Your task to perform on an android device: see tabs open on other devices in the chrome app Image 0: 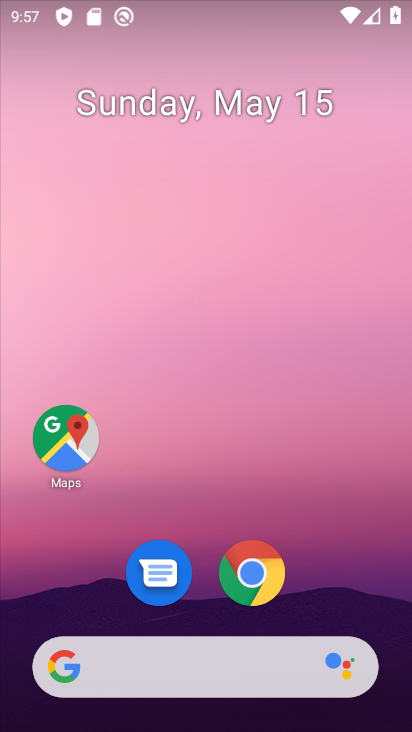
Step 0: click (249, 568)
Your task to perform on an android device: see tabs open on other devices in the chrome app Image 1: 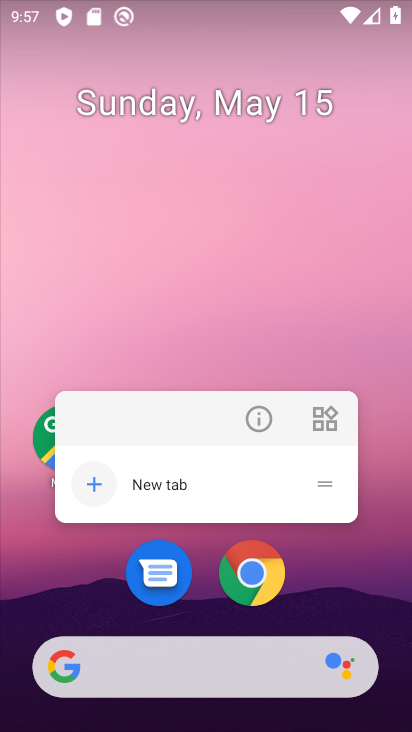
Step 1: click (266, 422)
Your task to perform on an android device: see tabs open on other devices in the chrome app Image 2: 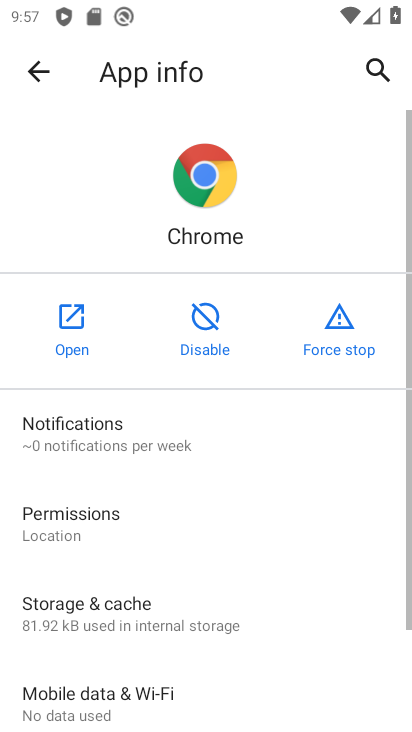
Step 2: click (80, 338)
Your task to perform on an android device: see tabs open on other devices in the chrome app Image 3: 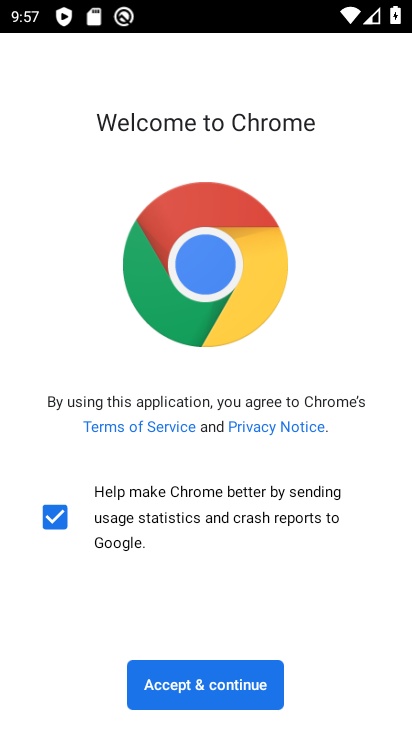
Step 3: click (192, 693)
Your task to perform on an android device: see tabs open on other devices in the chrome app Image 4: 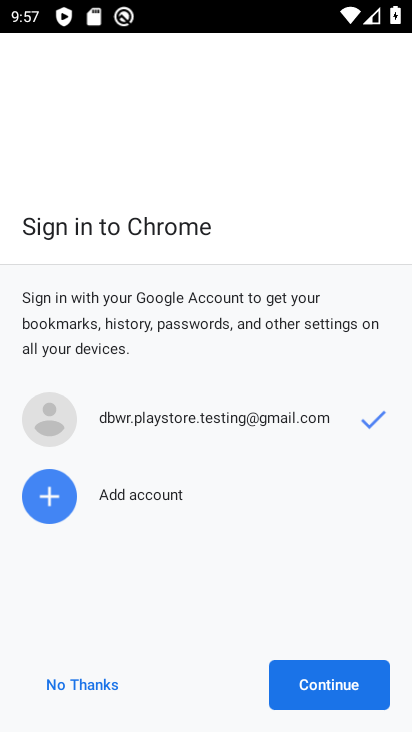
Step 4: click (369, 682)
Your task to perform on an android device: see tabs open on other devices in the chrome app Image 5: 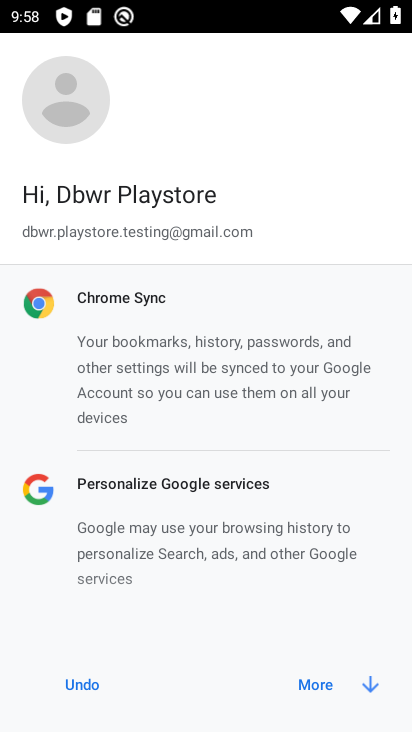
Step 5: click (314, 690)
Your task to perform on an android device: see tabs open on other devices in the chrome app Image 6: 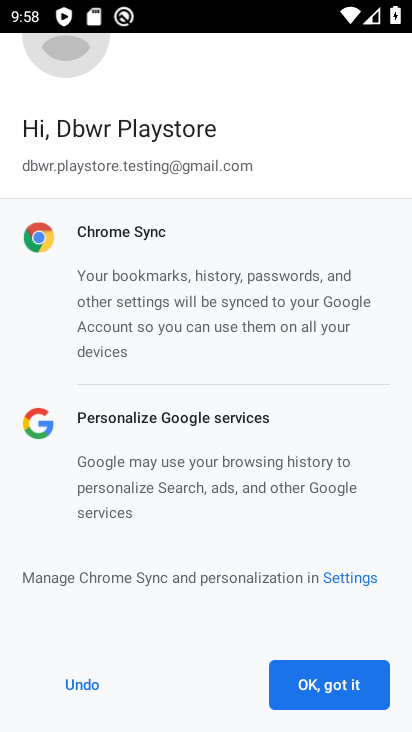
Step 6: click (335, 674)
Your task to perform on an android device: see tabs open on other devices in the chrome app Image 7: 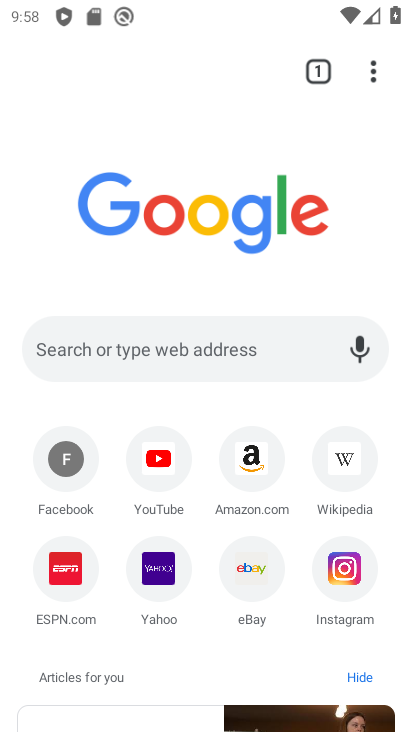
Step 7: click (331, 62)
Your task to perform on an android device: see tabs open on other devices in the chrome app Image 8: 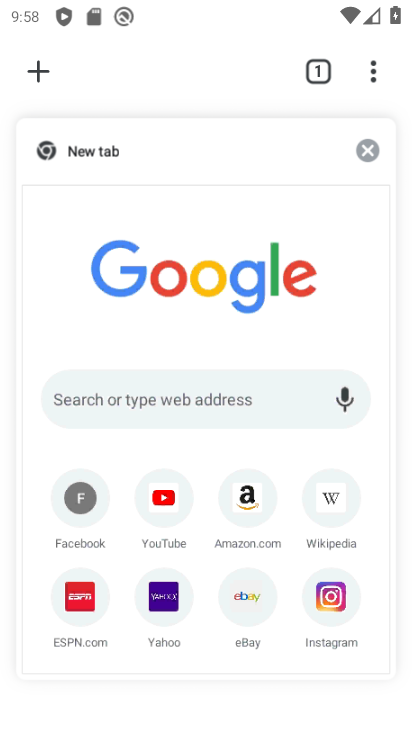
Step 8: task complete